Your task to perform on an android device: Search for Mexican restaurants on Maps Image 0: 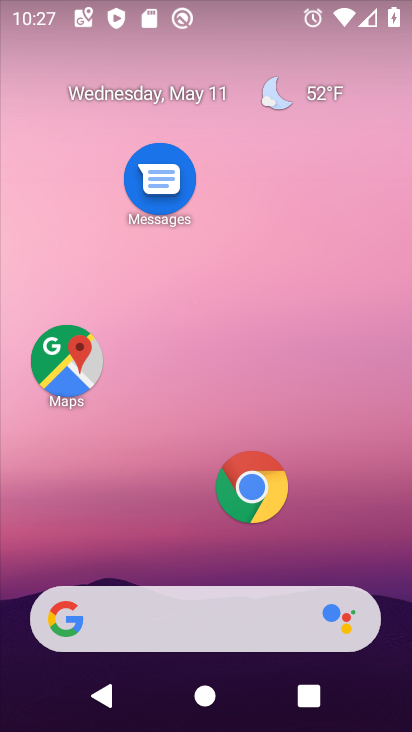
Step 0: click (74, 378)
Your task to perform on an android device: Search for Mexican restaurants on Maps Image 1: 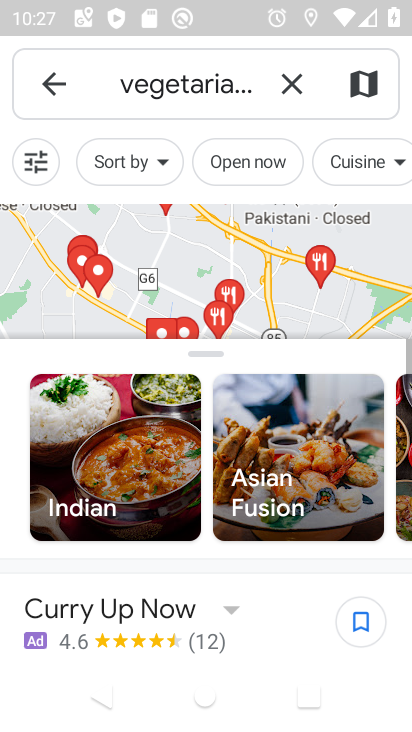
Step 1: click (282, 74)
Your task to perform on an android device: Search for Mexican restaurants on Maps Image 2: 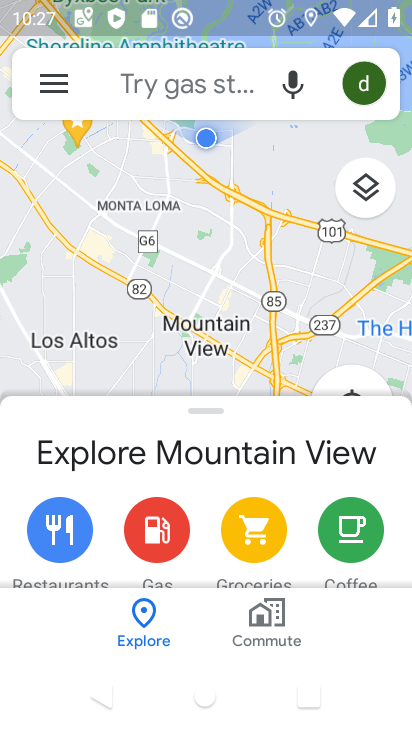
Step 2: click (151, 76)
Your task to perform on an android device: Search for Mexican restaurants on Maps Image 3: 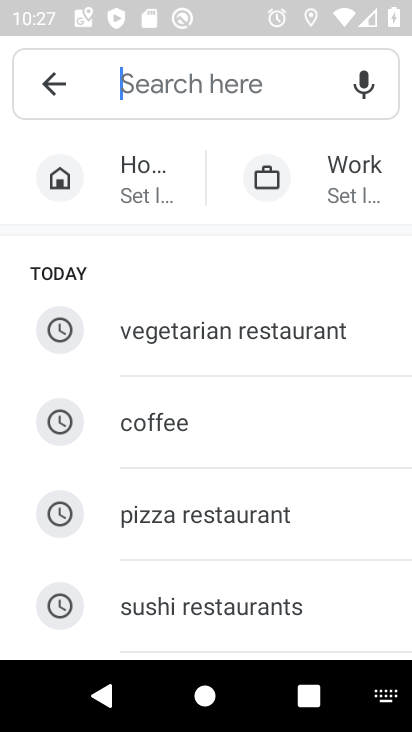
Step 3: type "Mexican restaurants"
Your task to perform on an android device: Search for Mexican restaurants on Maps Image 4: 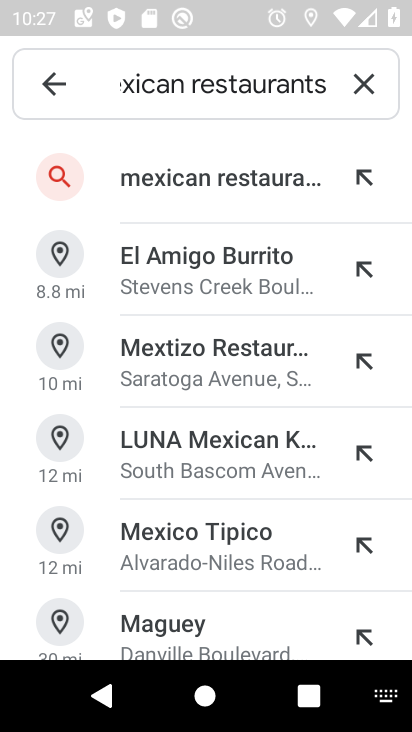
Step 4: click (147, 172)
Your task to perform on an android device: Search for Mexican restaurants on Maps Image 5: 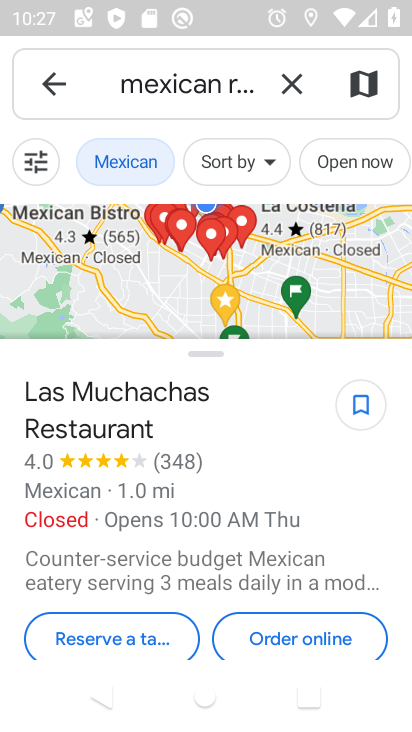
Step 5: task complete